Your task to perform on an android device: change the clock display to show seconds Image 0: 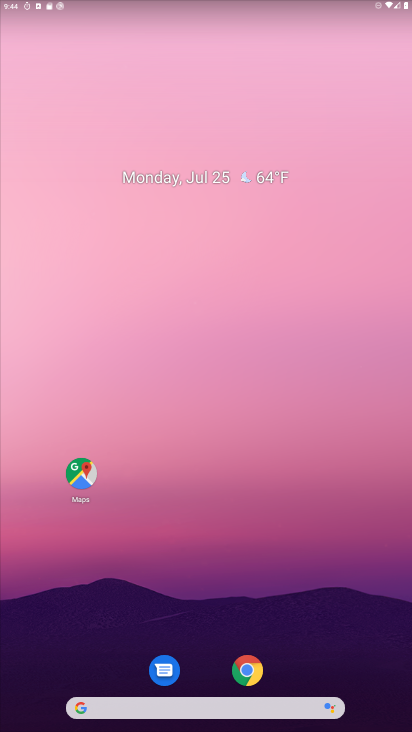
Step 0: drag from (355, 671) to (190, 93)
Your task to perform on an android device: change the clock display to show seconds Image 1: 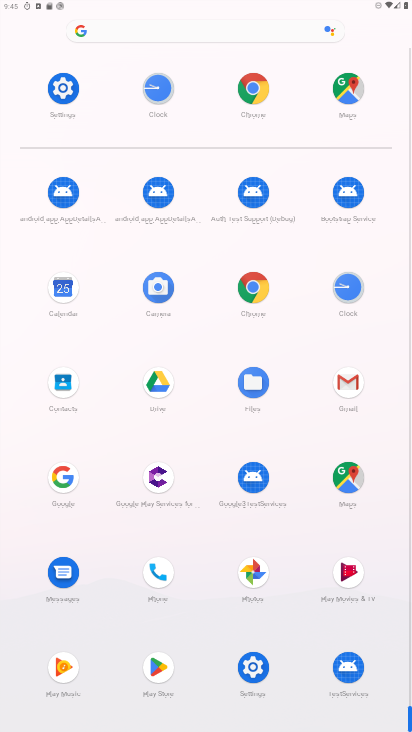
Step 1: click (356, 292)
Your task to perform on an android device: change the clock display to show seconds Image 2: 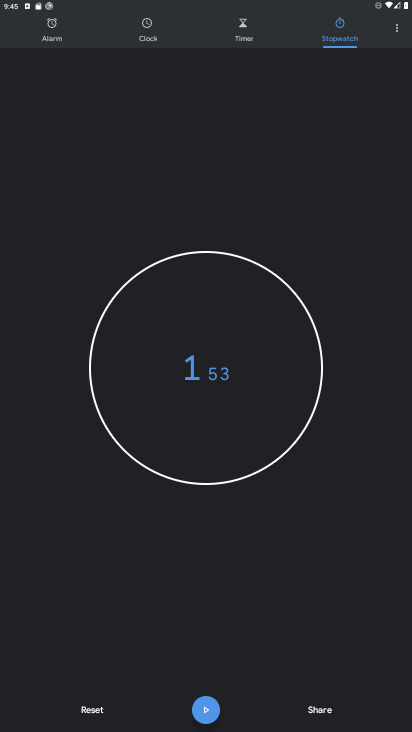
Step 2: click (399, 27)
Your task to perform on an android device: change the clock display to show seconds Image 3: 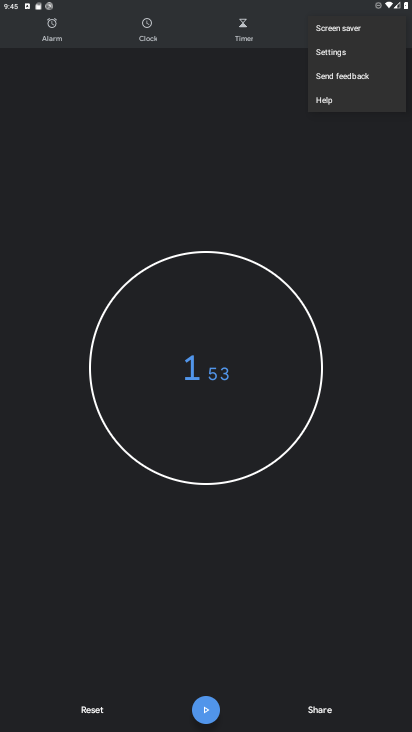
Step 3: click (350, 48)
Your task to perform on an android device: change the clock display to show seconds Image 4: 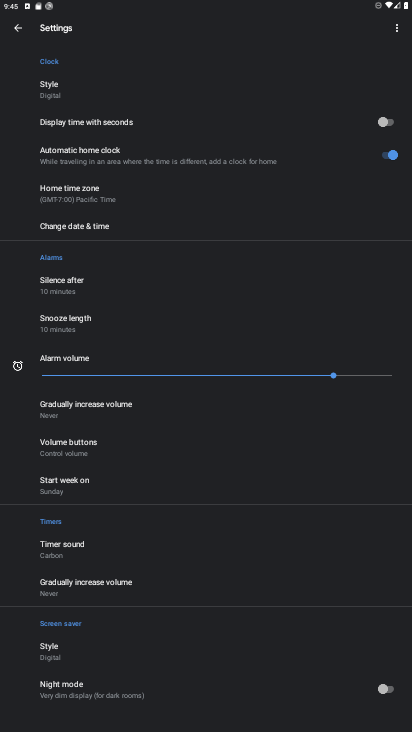
Step 4: click (355, 133)
Your task to perform on an android device: change the clock display to show seconds Image 5: 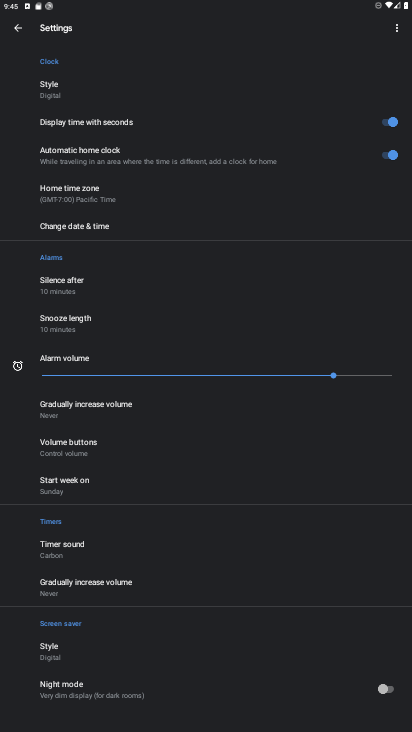
Step 5: task complete